Your task to perform on an android device: Open ESPN.com Image 0: 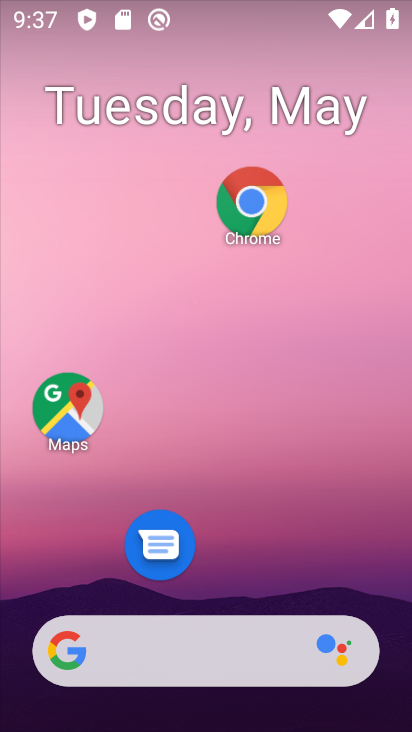
Step 0: click (267, 219)
Your task to perform on an android device: Open ESPN.com Image 1: 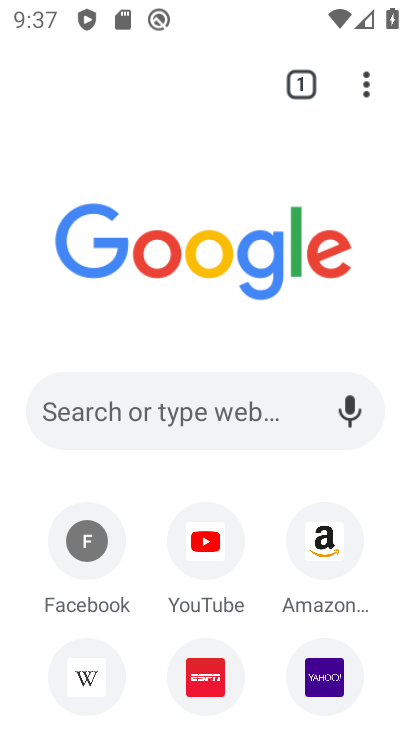
Step 1: click (178, 426)
Your task to perform on an android device: Open ESPN.com Image 2: 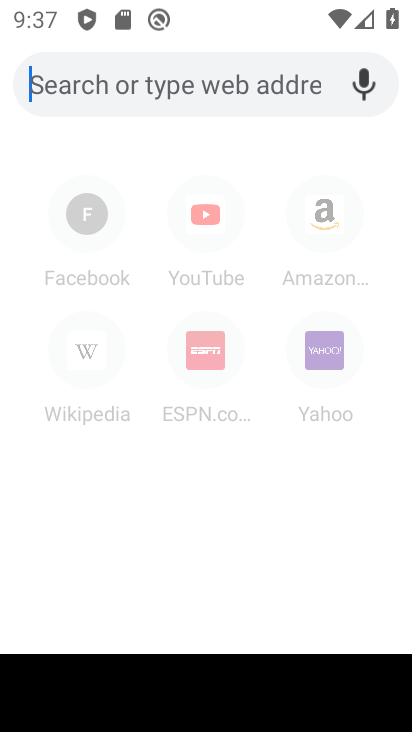
Step 2: type "Espn.com"
Your task to perform on an android device: Open ESPN.com Image 3: 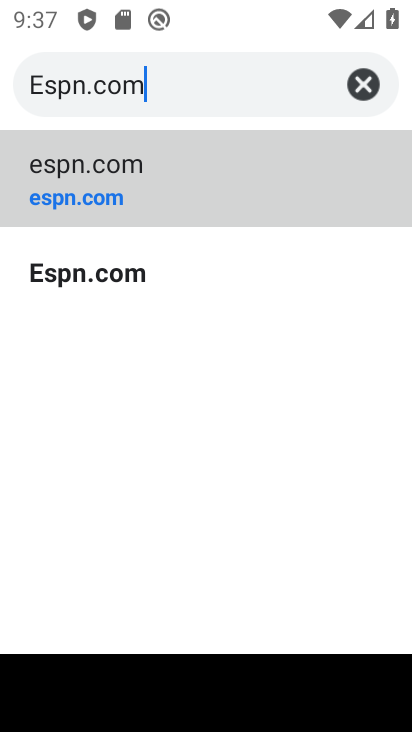
Step 3: click (76, 201)
Your task to perform on an android device: Open ESPN.com Image 4: 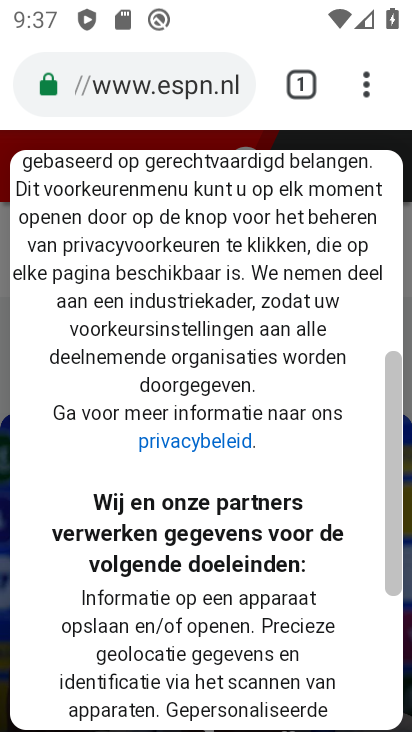
Step 4: drag from (349, 684) to (350, 293)
Your task to perform on an android device: Open ESPN.com Image 5: 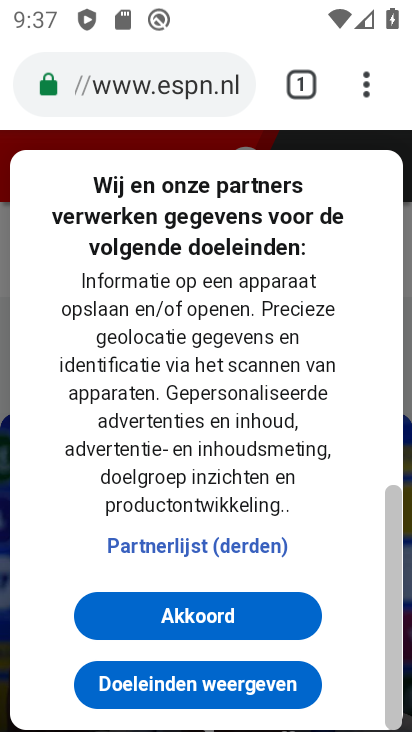
Step 5: click (263, 617)
Your task to perform on an android device: Open ESPN.com Image 6: 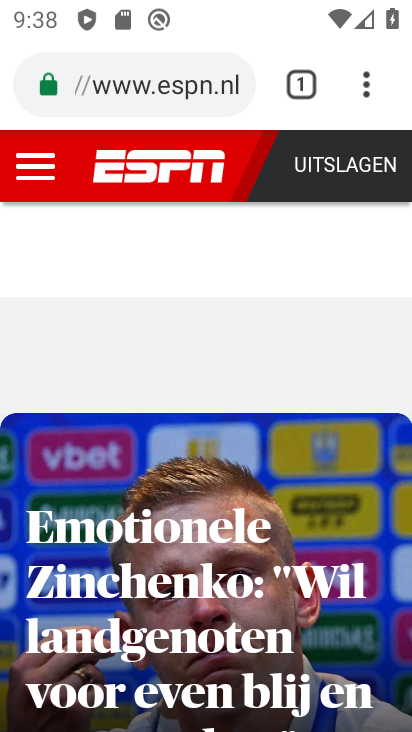
Step 6: task complete